Your task to perform on an android device: change the clock display to digital Image 0: 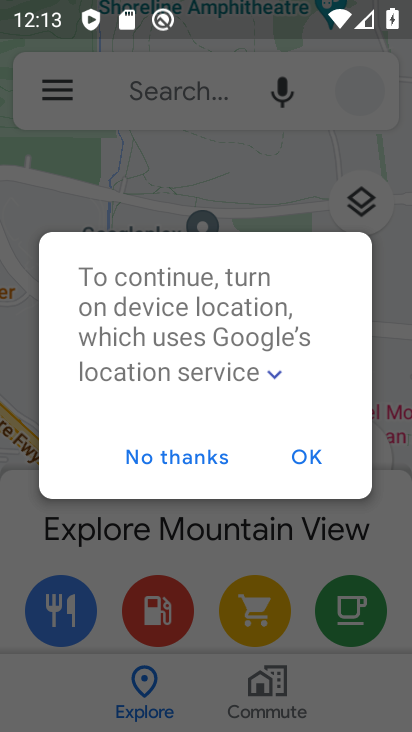
Step 0: press home button
Your task to perform on an android device: change the clock display to digital Image 1: 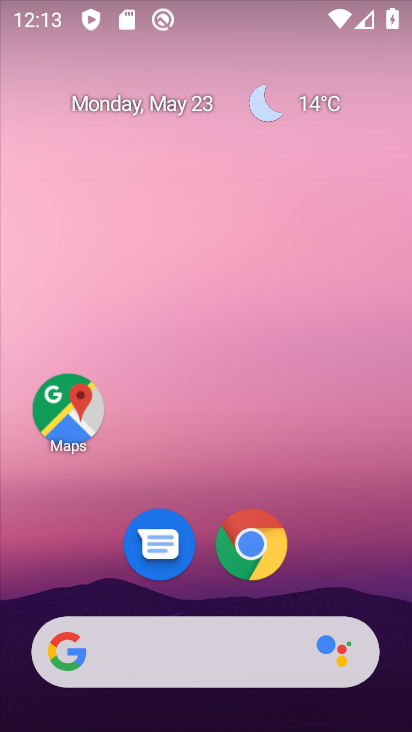
Step 1: drag from (364, 485) to (315, 65)
Your task to perform on an android device: change the clock display to digital Image 2: 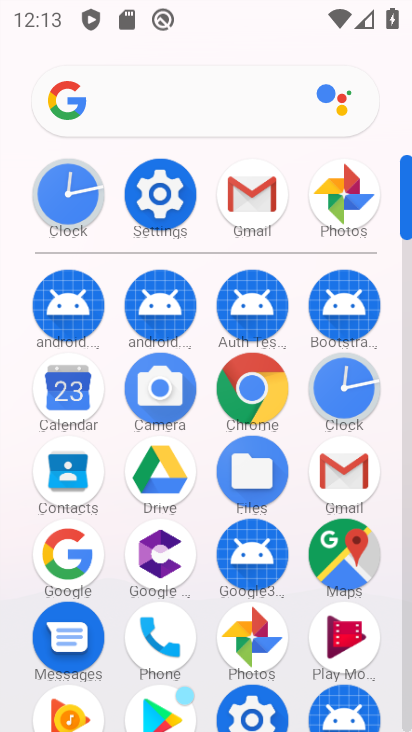
Step 2: click (334, 370)
Your task to perform on an android device: change the clock display to digital Image 3: 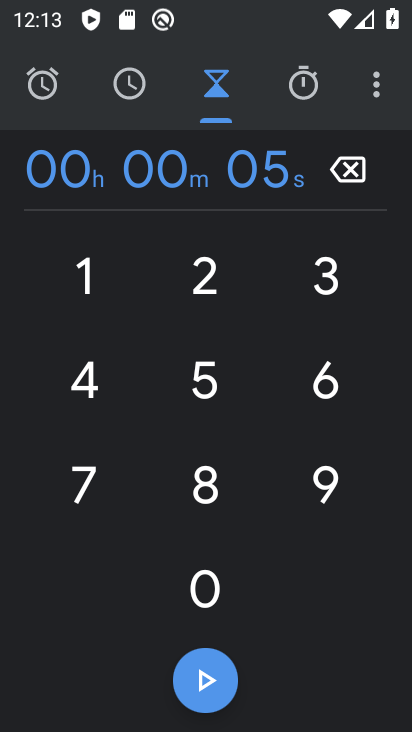
Step 3: click (380, 80)
Your task to perform on an android device: change the clock display to digital Image 4: 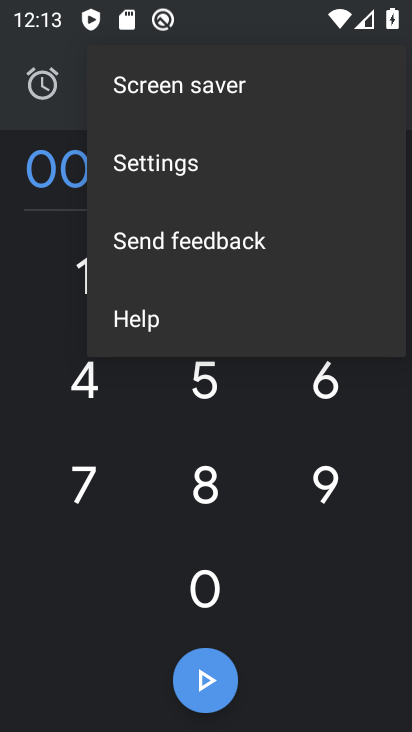
Step 4: click (140, 167)
Your task to perform on an android device: change the clock display to digital Image 5: 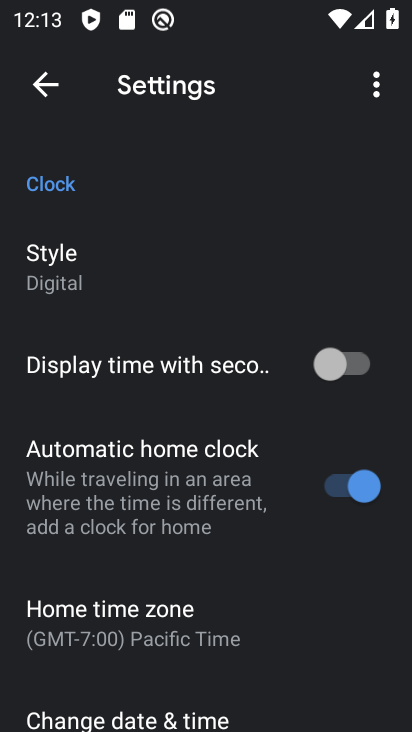
Step 5: click (57, 282)
Your task to perform on an android device: change the clock display to digital Image 6: 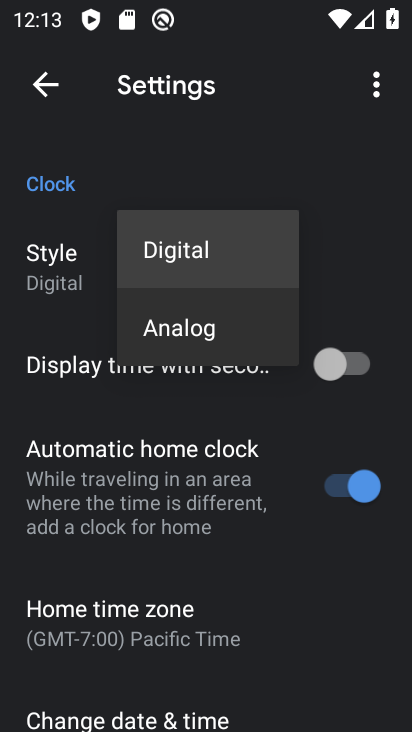
Step 6: task complete